Your task to perform on an android device: uninstall "WhatsApp Messenger" Image 0: 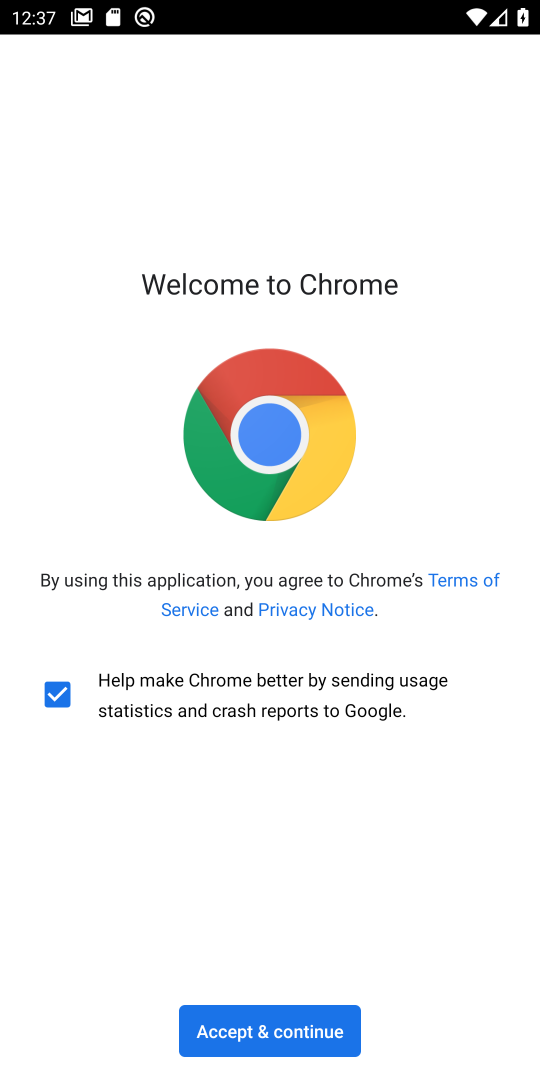
Step 0: press home button
Your task to perform on an android device: uninstall "WhatsApp Messenger" Image 1: 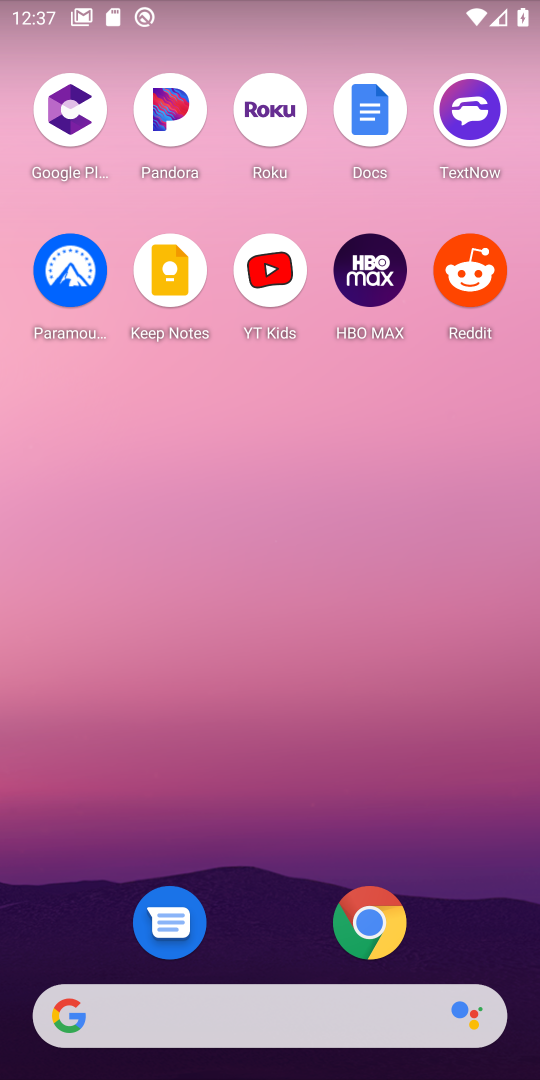
Step 1: drag from (53, 752) to (467, 752)
Your task to perform on an android device: uninstall "WhatsApp Messenger" Image 2: 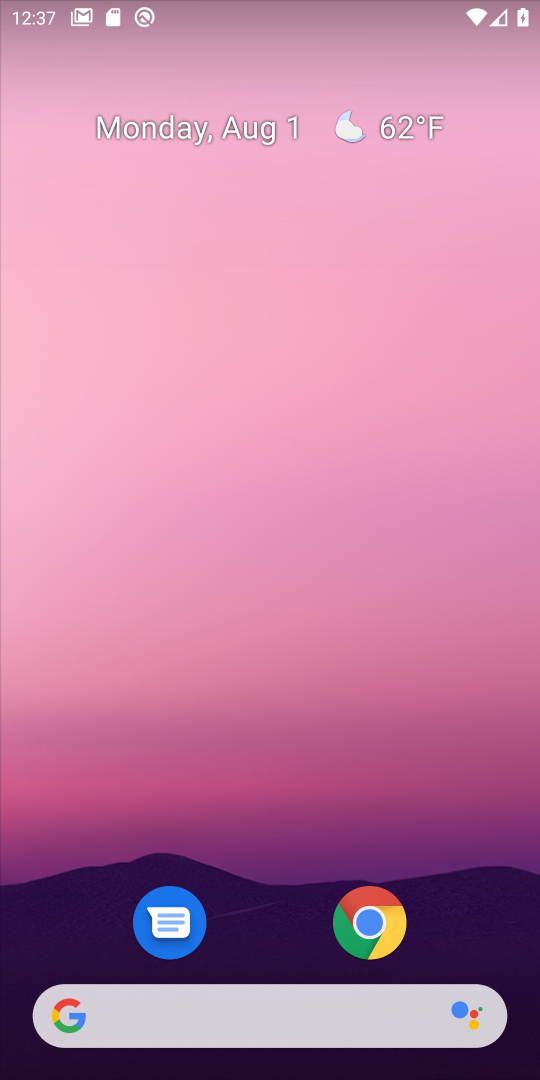
Step 2: drag from (274, 875) to (271, 188)
Your task to perform on an android device: uninstall "WhatsApp Messenger" Image 3: 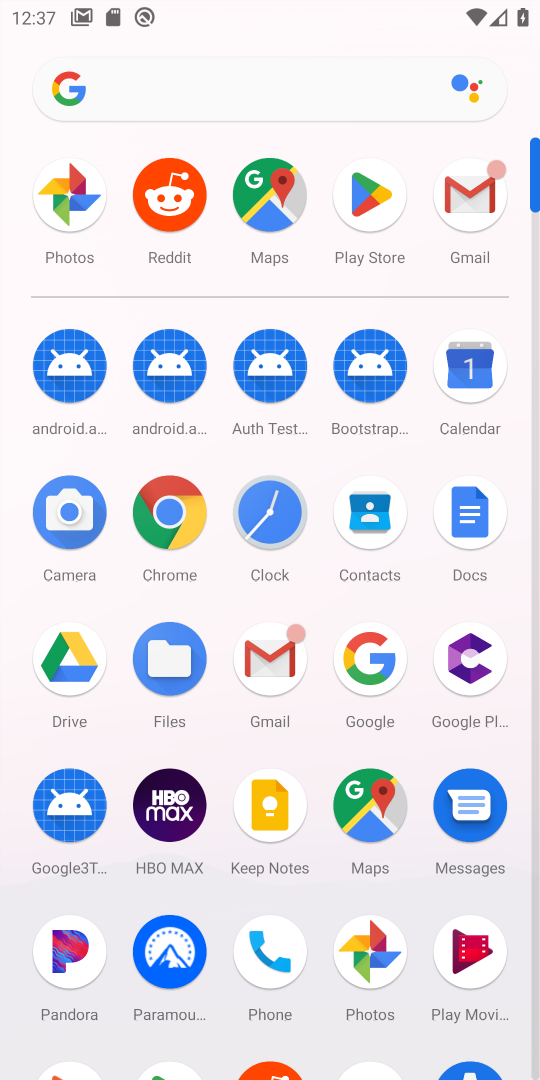
Step 3: click (347, 215)
Your task to perform on an android device: uninstall "WhatsApp Messenger" Image 4: 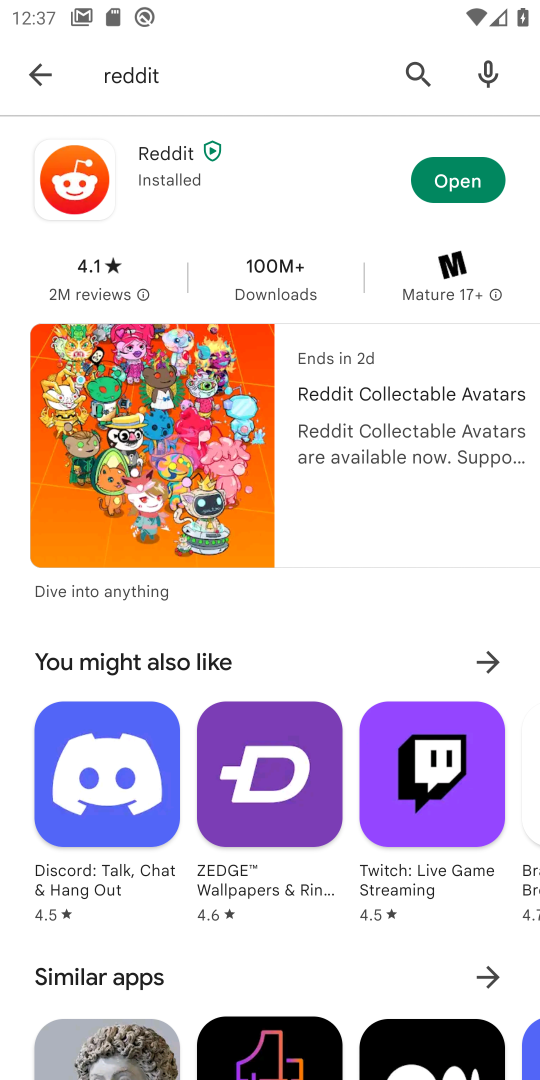
Step 4: click (429, 83)
Your task to perform on an android device: uninstall "WhatsApp Messenger" Image 5: 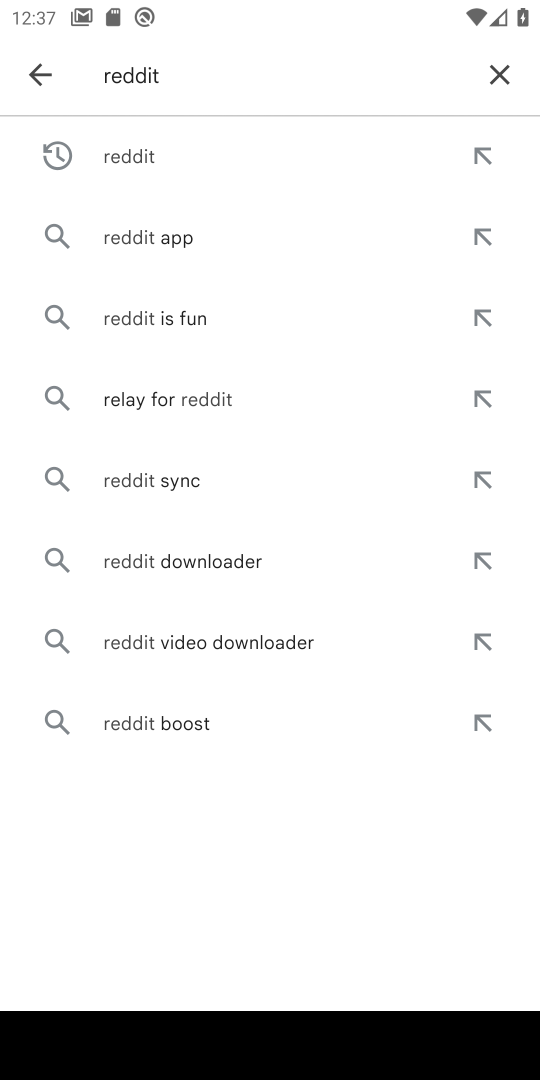
Step 5: click (488, 74)
Your task to perform on an android device: uninstall "WhatsApp Messenger" Image 6: 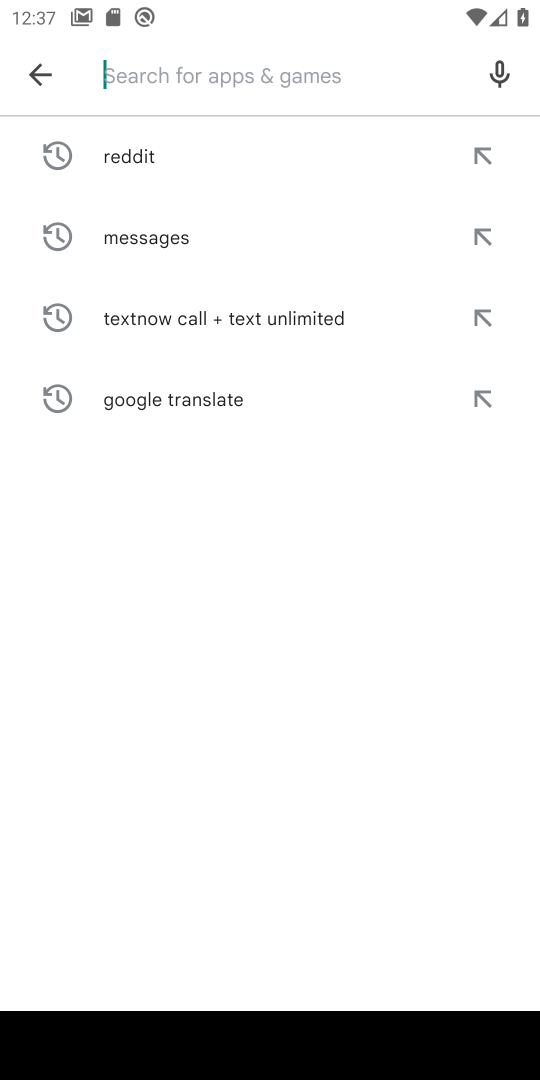
Step 6: type "WhatsApp Messenger"
Your task to perform on an android device: uninstall "WhatsApp Messenger" Image 7: 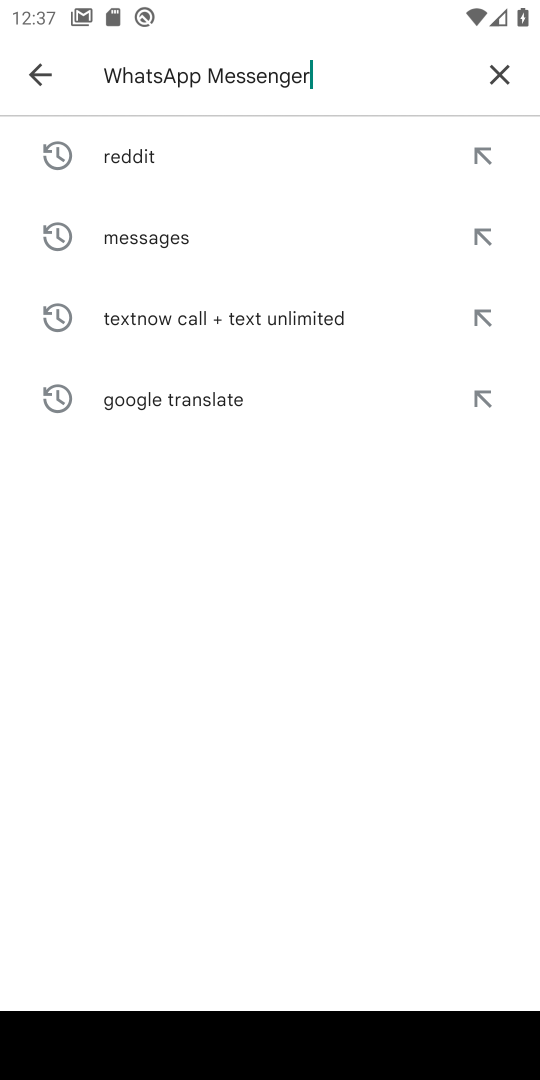
Step 7: type ""
Your task to perform on an android device: uninstall "WhatsApp Messenger" Image 8: 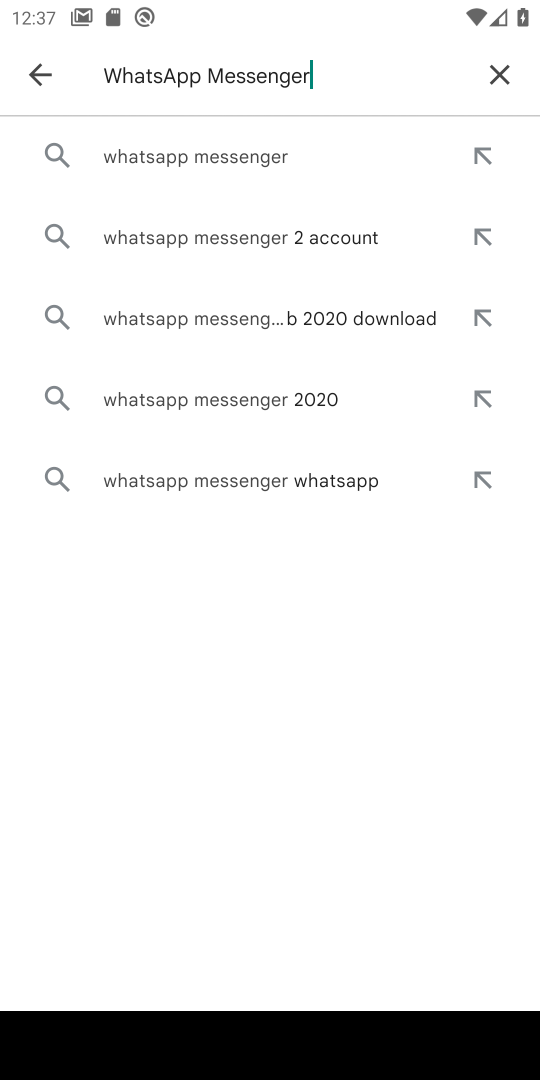
Step 8: click (292, 139)
Your task to perform on an android device: uninstall "WhatsApp Messenger" Image 9: 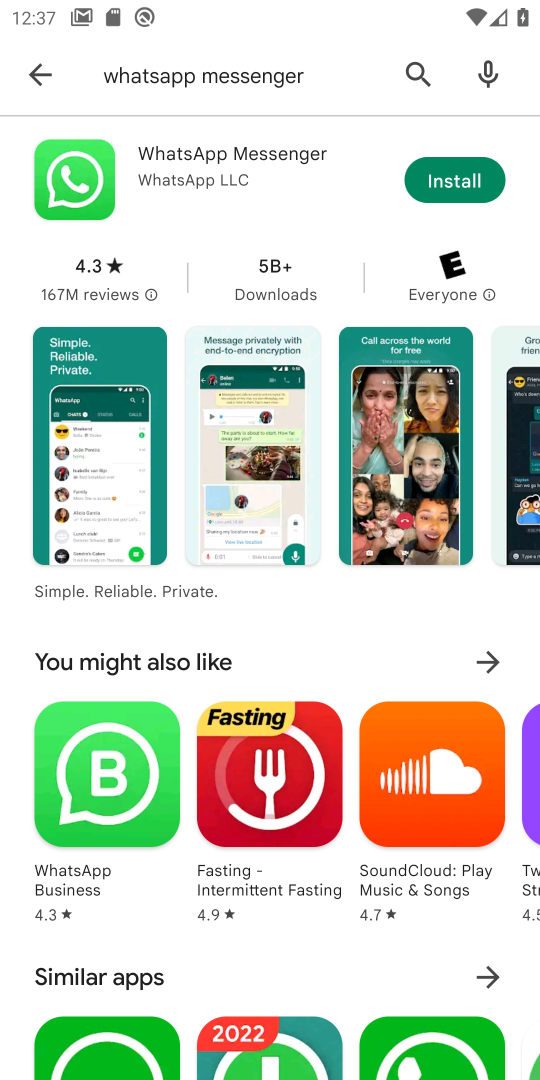
Step 9: task complete